Your task to perform on an android device: Search for pizza restaurants on Maps Image 0: 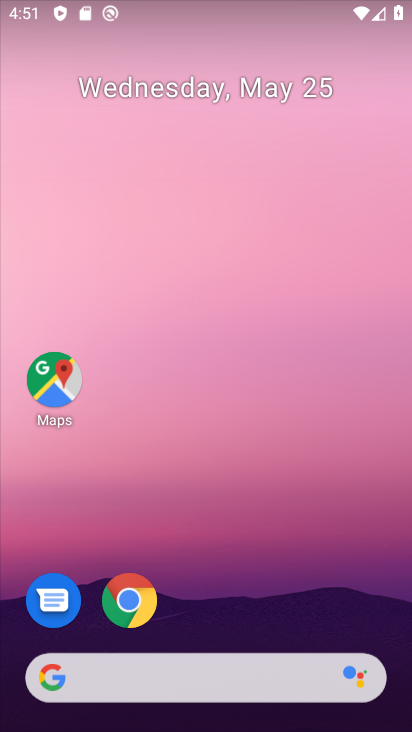
Step 0: click (61, 370)
Your task to perform on an android device: Search for pizza restaurants on Maps Image 1: 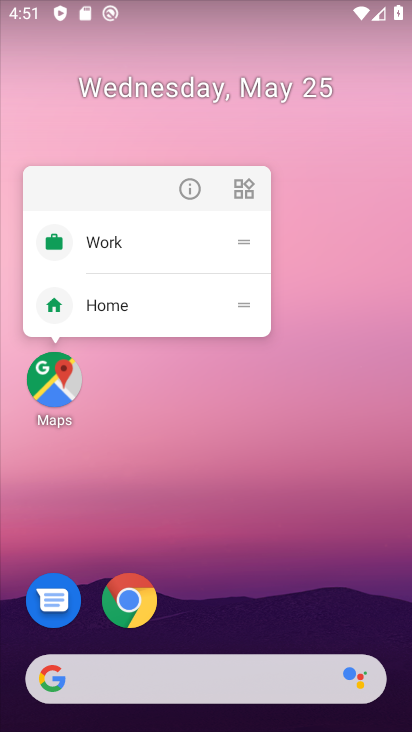
Step 1: click (55, 375)
Your task to perform on an android device: Search for pizza restaurants on Maps Image 2: 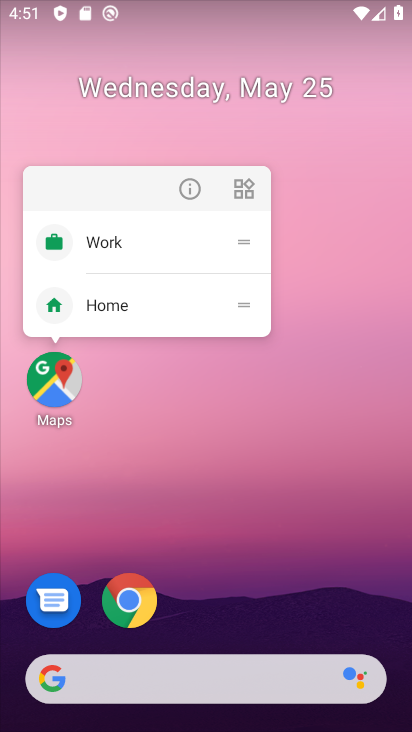
Step 2: click (55, 398)
Your task to perform on an android device: Search for pizza restaurants on Maps Image 3: 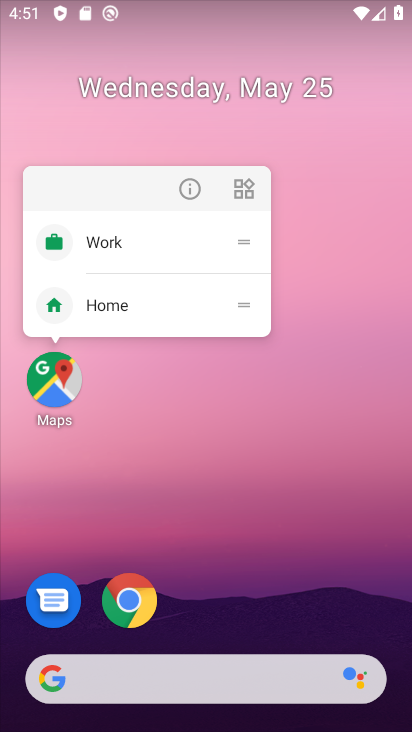
Step 3: click (55, 398)
Your task to perform on an android device: Search for pizza restaurants on Maps Image 4: 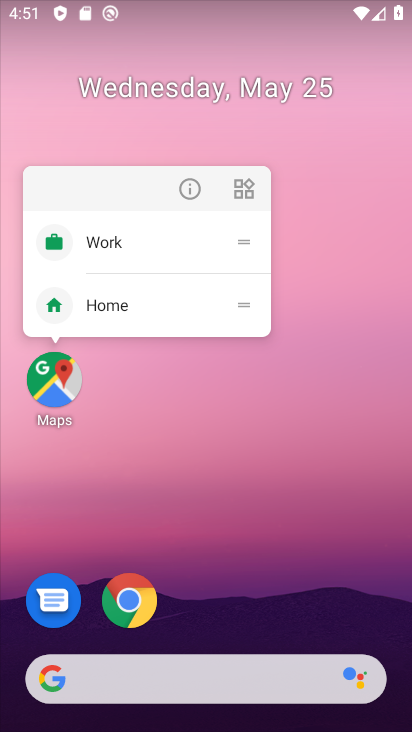
Step 4: click (61, 407)
Your task to perform on an android device: Search for pizza restaurants on Maps Image 5: 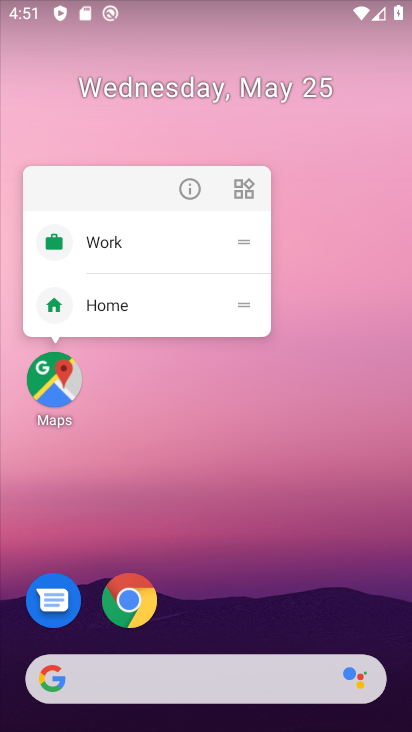
Step 5: click (66, 390)
Your task to perform on an android device: Search for pizza restaurants on Maps Image 6: 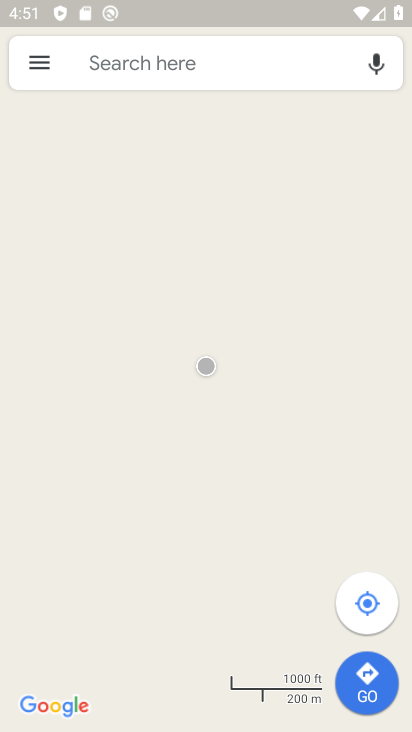
Step 6: click (149, 71)
Your task to perform on an android device: Search for pizza restaurants on Maps Image 7: 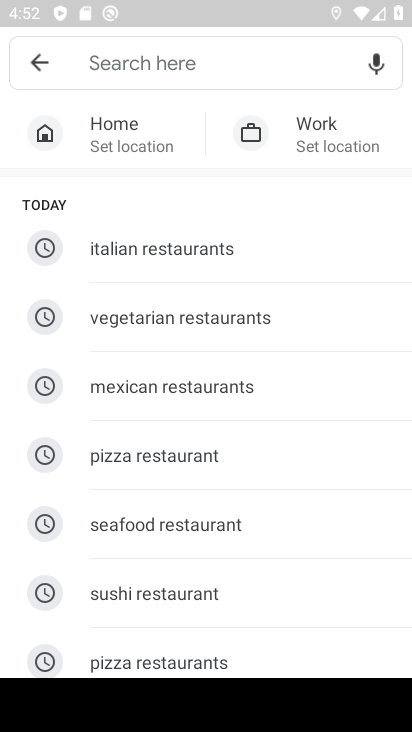
Step 7: type "Pizza restaurants"
Your task to perform on an android device: Search for pizza restaurants on Maps Image 8: 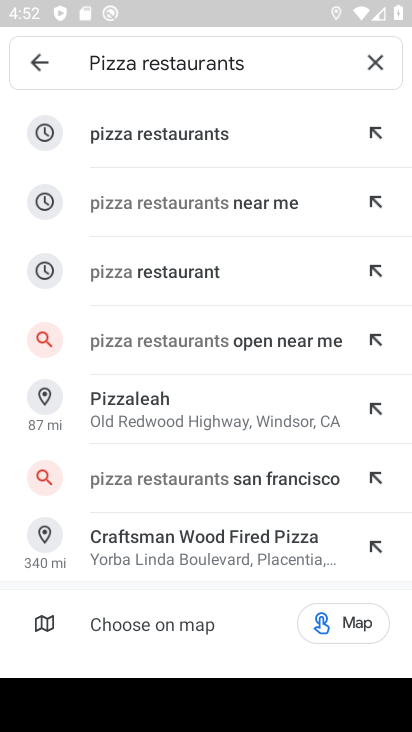
Step 8: click (222, 128)
Your task to perform on an android device: Search for pizza restaurants on Maps Image 9: 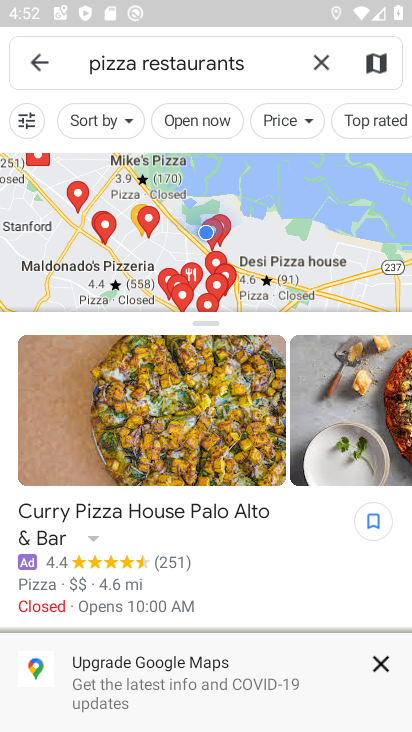
Step 9: click (384, 667)
Your task to perform on an android device: Search for pizza restaurants on Maps Image 10: 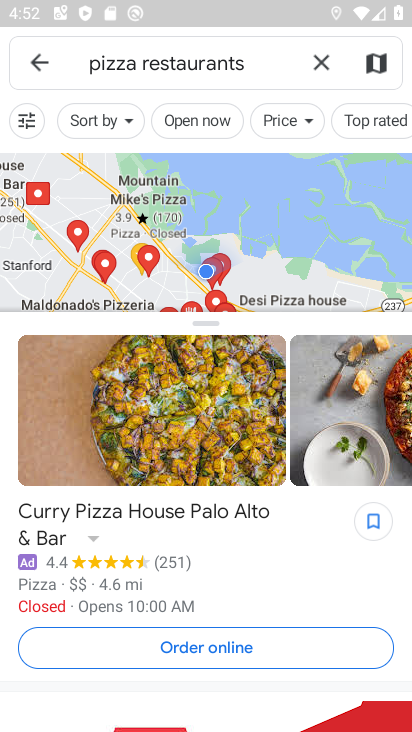
Step 10: task complete